Your task to perform on an android device: check storage Image 0: 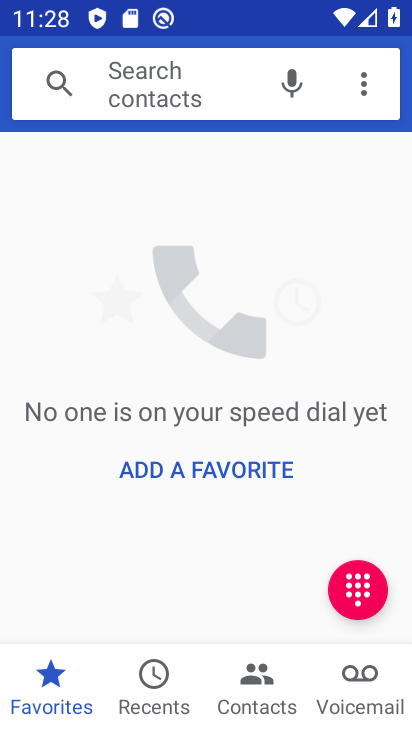
Step 0: press home button
Your task to perform on an android device: check storage Image 1: 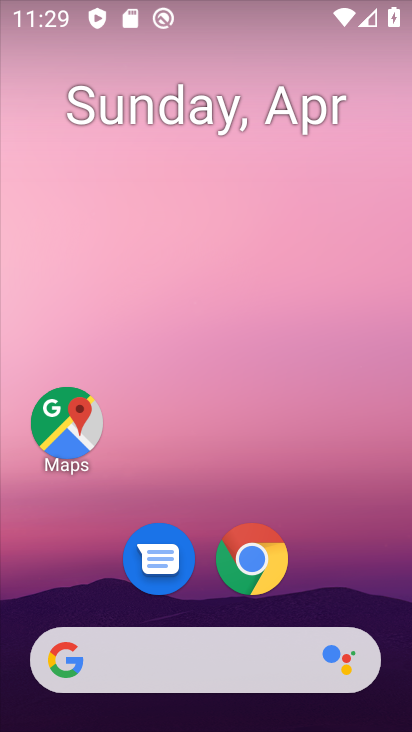
Step 1: drag from (337, 580) to (263, 132)
Your task to perform on an android device: check storage Image 2: 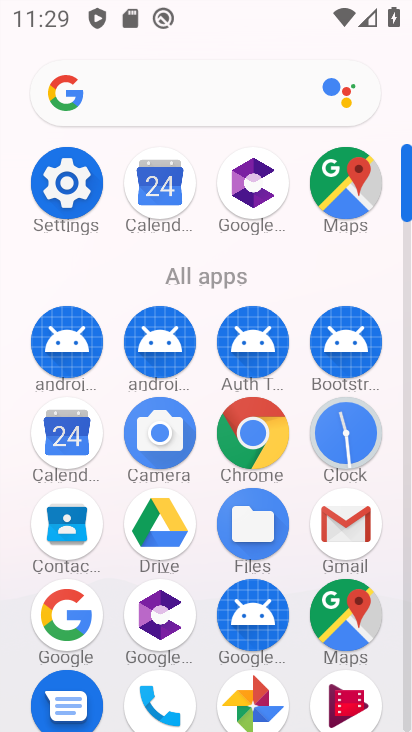
Step 2: click (60, 191)
Your task to perform on an android device: check storage Image 3: 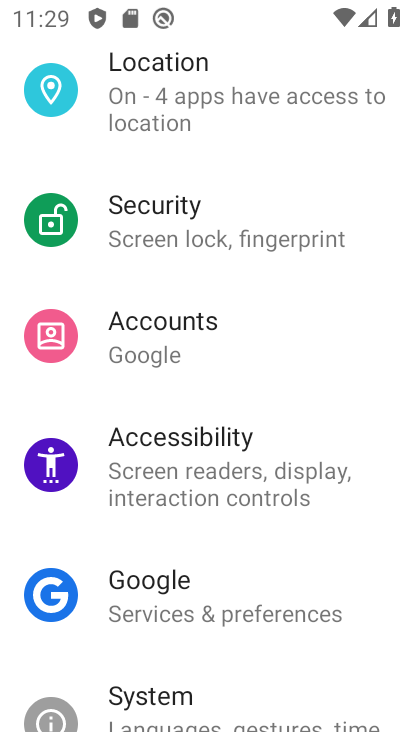
Step 3: drag from (188, 220) to (168, 396)
Your task to perform on an android device: check storage Image 4: 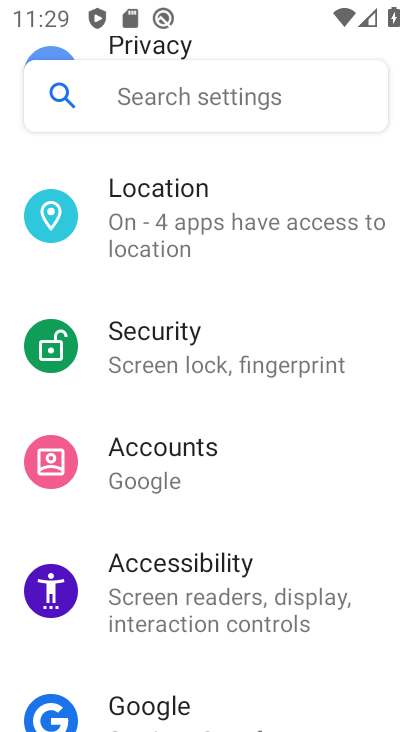
Step 4: drag from (239, 304) to (238, 381)
Your task to perform on an android device: check storage Image 5: 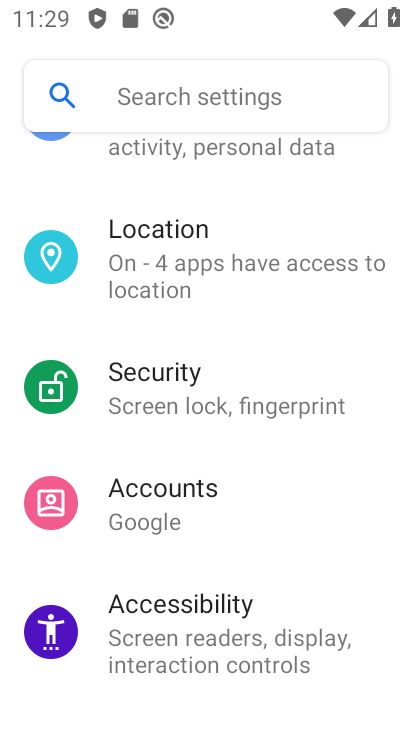
Step 5: drag from (270, 248) to (265, 569)
Your task to perform on an android device: check storage Image 6: 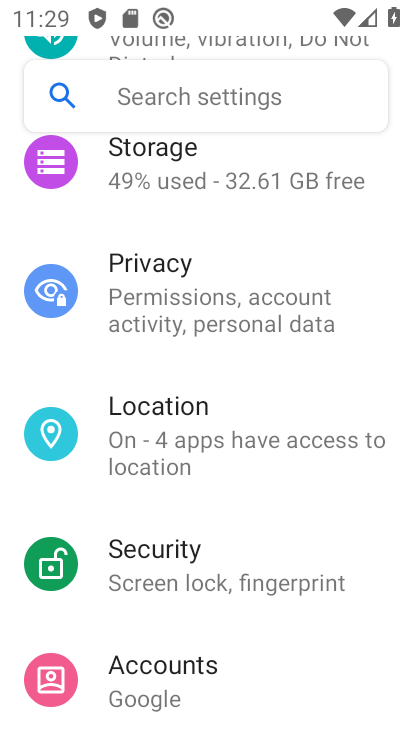
Step 6: click (189, 180)
Your task to perform on an android device: check storage Image 7: 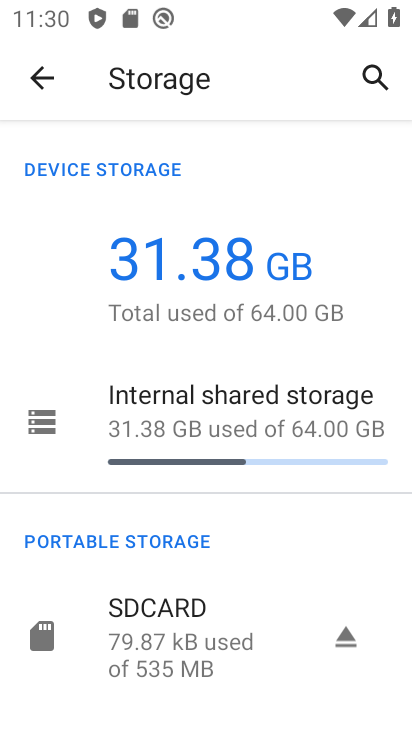
Step 7: task complete